Your task to perform on an android device: change notifications settings Image 0: 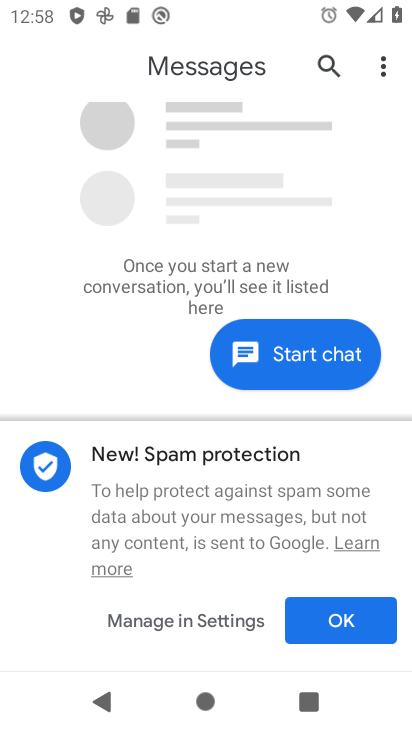
Step 0: press home button
Your task to perform on an android device: change notifications settings Image 1: 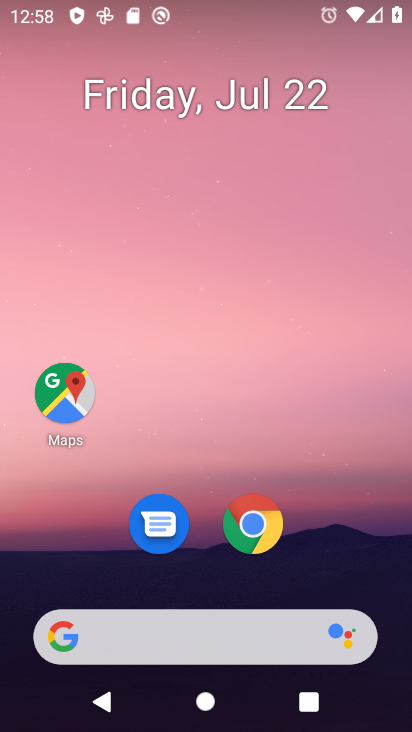
Step 1: drag from (174, 630) to (280, 32)
Your task to perform on an android device: change notifications settings Image 2: 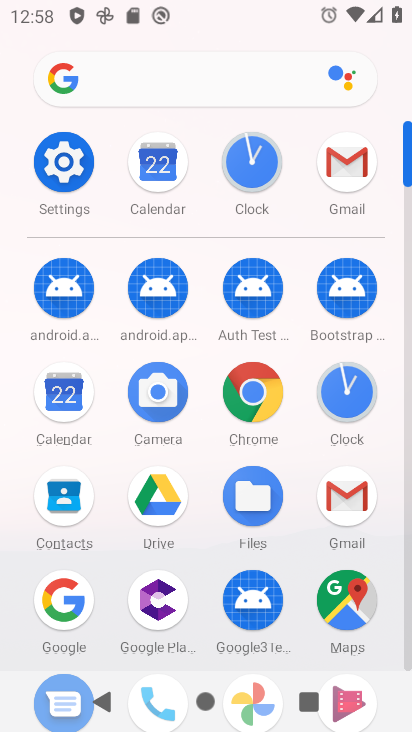
Step 2: click (62, 168)
Your task to perform on an android device: change notifications settings Image 3: 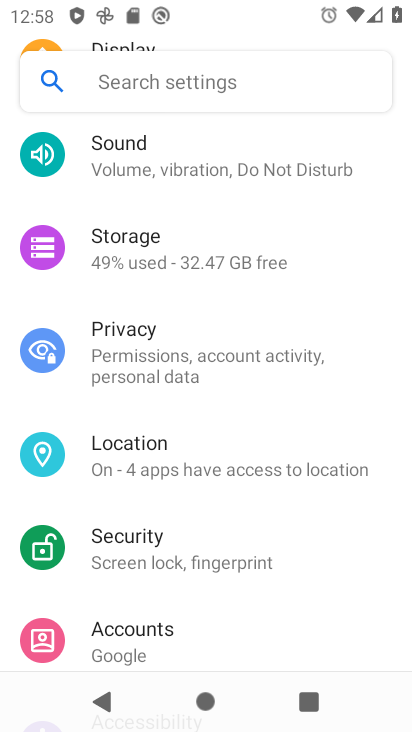
Step 3: drag from (282, 215) to (220, 632)
Your task to perform on an android device: change notifications settings Image 4: 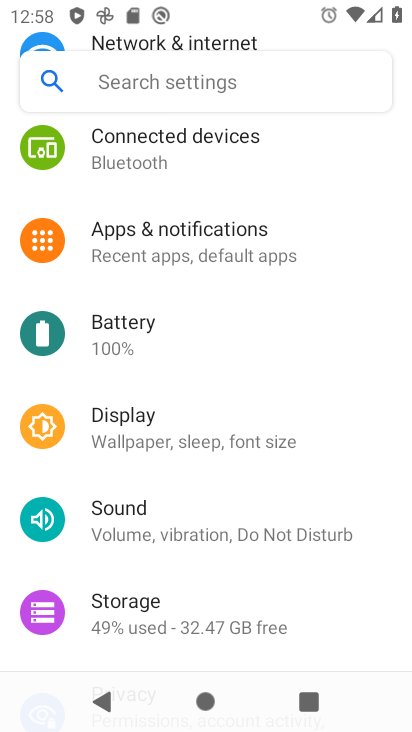
Step 4: click (204, 248)
Your task to perform on an android device: change notifications settings Image 5: 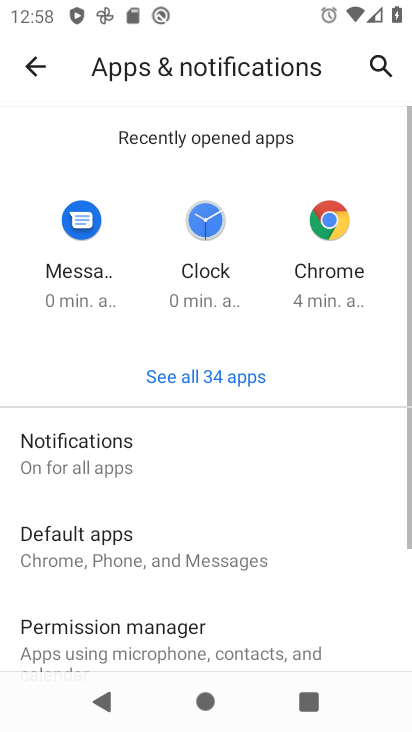
Step 5: click (88, 458)
Your task to perform on an android device: change notifications settings Image 6: 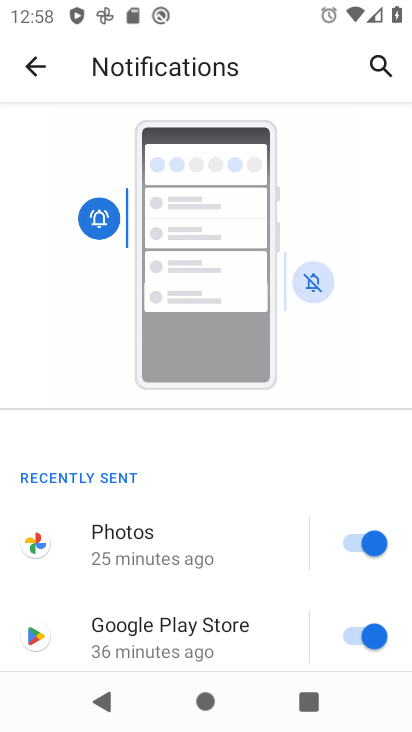
Step 6: task complete